Your task to perform on an android device: visit the assistant section in the google photos Image 0: 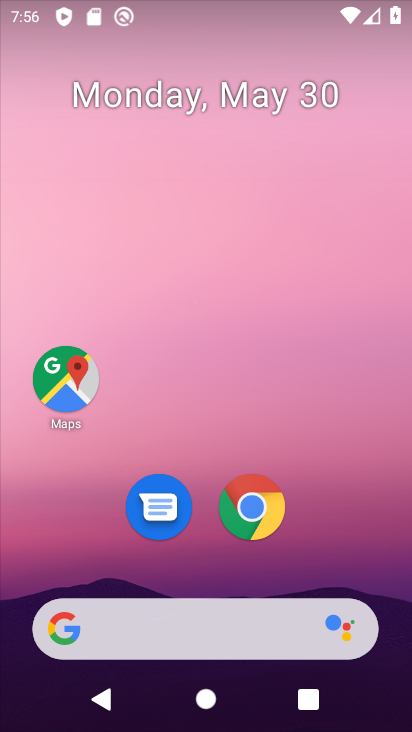
Step 0: drag from (255, 614) to (290, 73)
Your task to perform on an android device: visit the assistant section in the google photos Image 1: 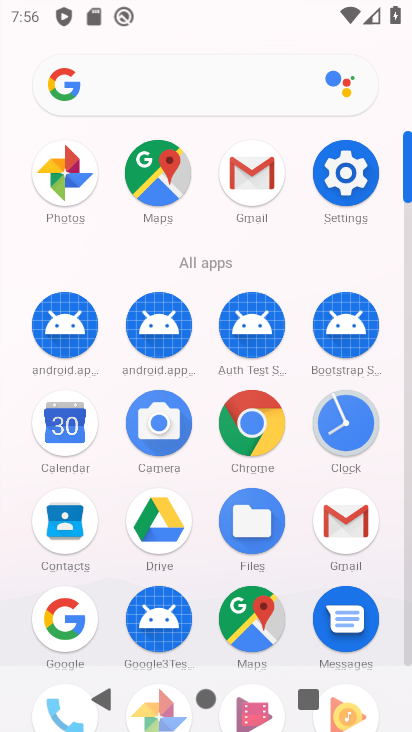
Step 1: click (43, 163)
Your task to perform on an android device: visit the assistant section in the google photos Image 2: 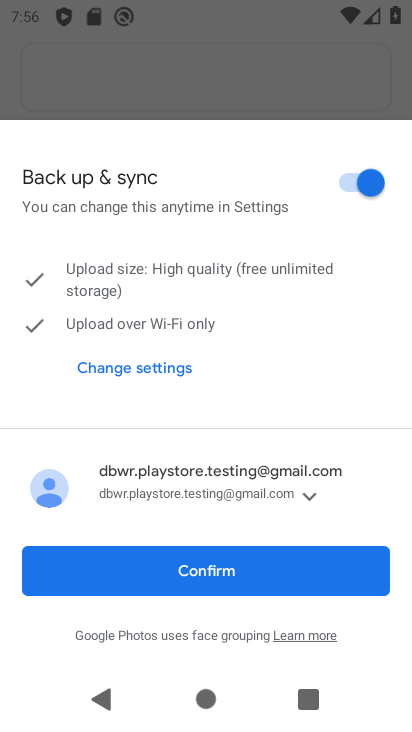
Step 2: click (250, 568)
Your task to perform on an android device: visit the assistant section in the google photos Image 3: 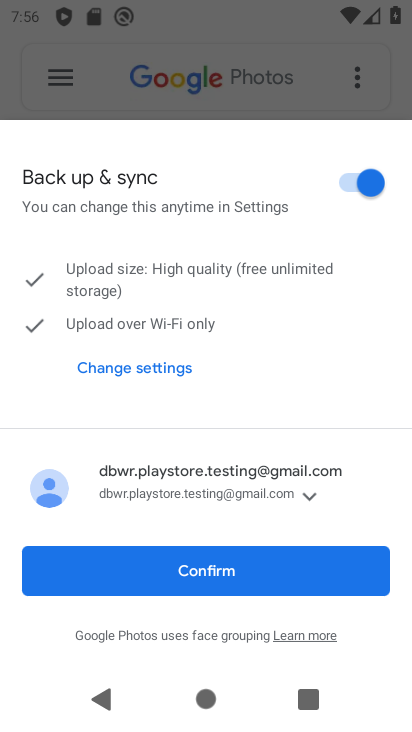
Step 3: click (262, 573)
Your task to perform on an android device: visit the assistant section in the google photos Image 4: 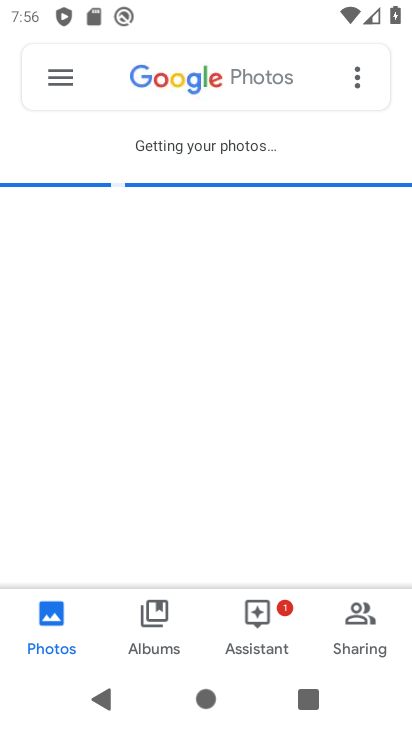
Step 4: click (273, 607)
Your task to perform on an android device: visit the assistant section in the google photos Image 5: 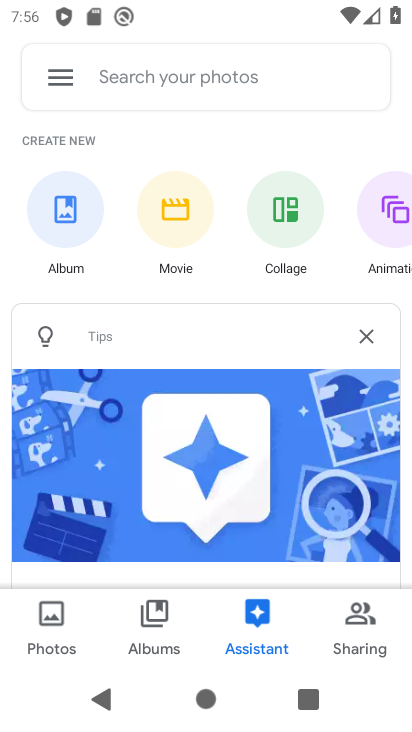
Step 5: task complete